Your task to perform on an android device: Turn off the flashlight Image 0: 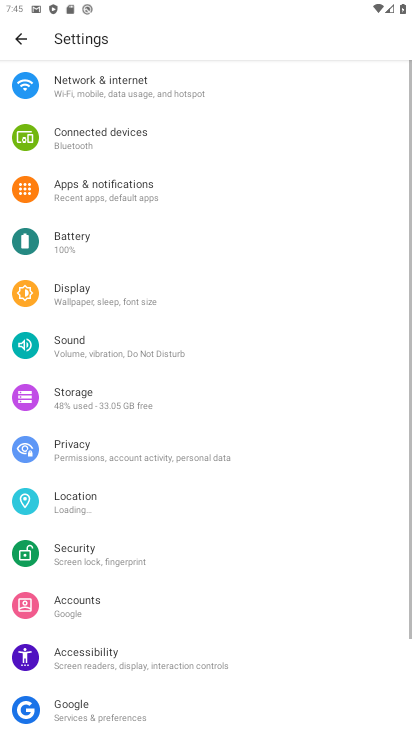
Step 0: drag from (227, 3) to (294, 652)
Your task to perform on an android device: Turn off the flashlight Image 1: 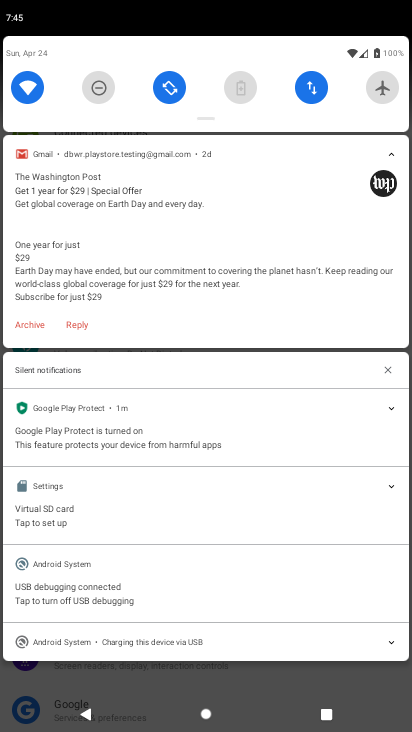
Step 1: task complete